Your task to perform on an android device: star an email in the gmail app Image 0: 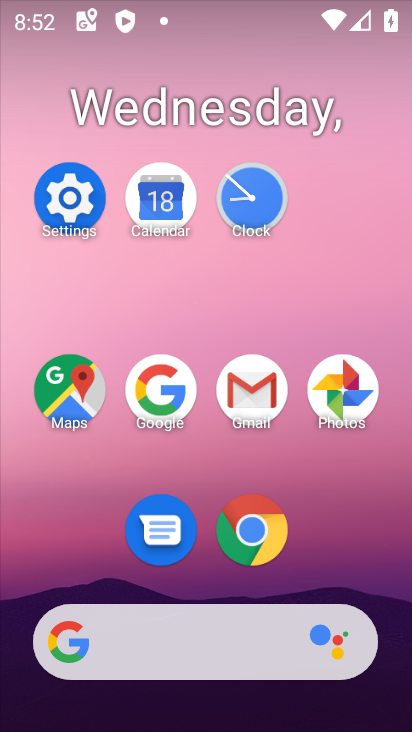
Step 0: click (246, 389)
Your task to perform on an android device: star an email in the gmail app Image 1: 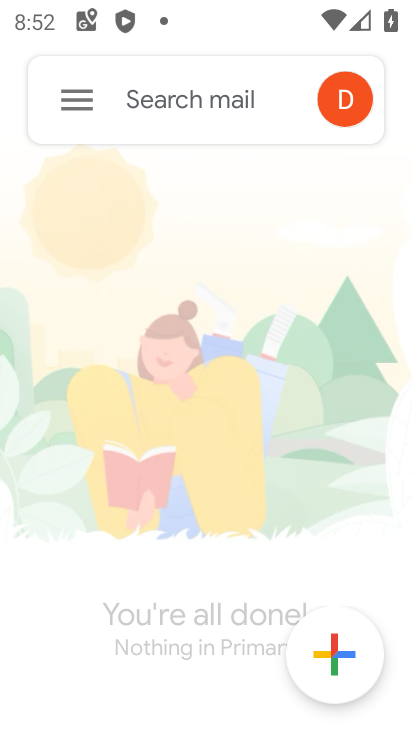
Step 1: click (72, 108)
Your task to perform on an android device: star an email in the gmail app Image 2: 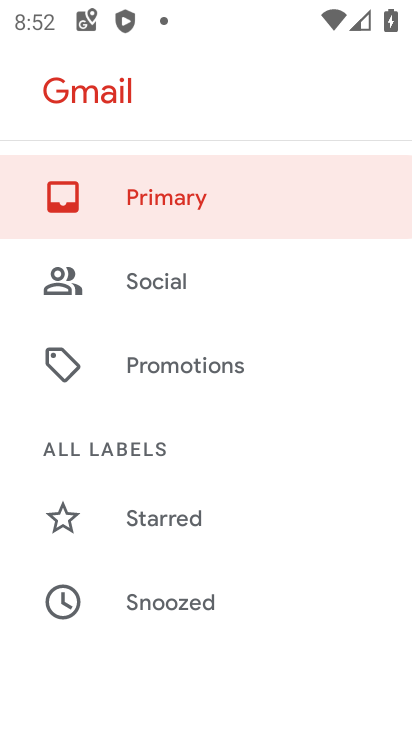
Step 2: drag from (203, 561) to (265, 233)
Your task to perform on an android device: star an email in the gmail app Image 3: 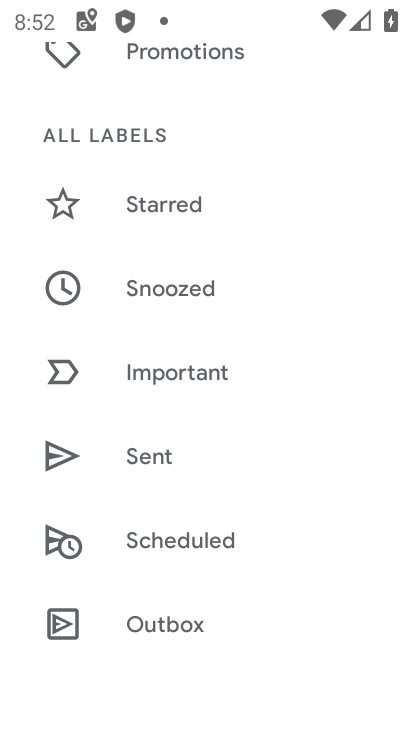
Step 3: drag from (298, 512) to (296, 199)
Your task to perform on an android device: star an email in the gmail app Image 4: 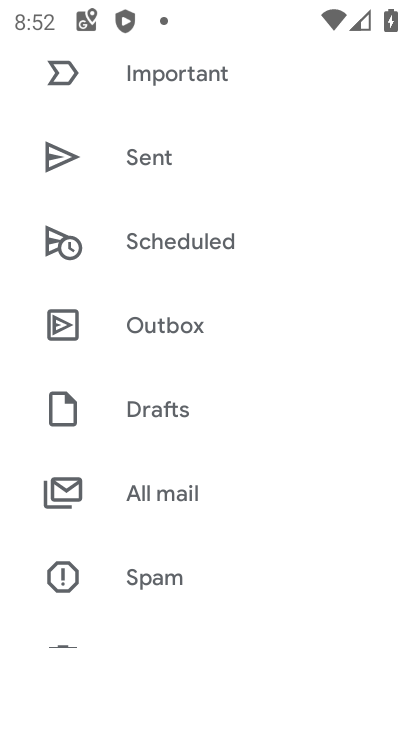
Step 4: click (281, 508)
Your task to perform on an android device: star an email in the gmail app Image 5: 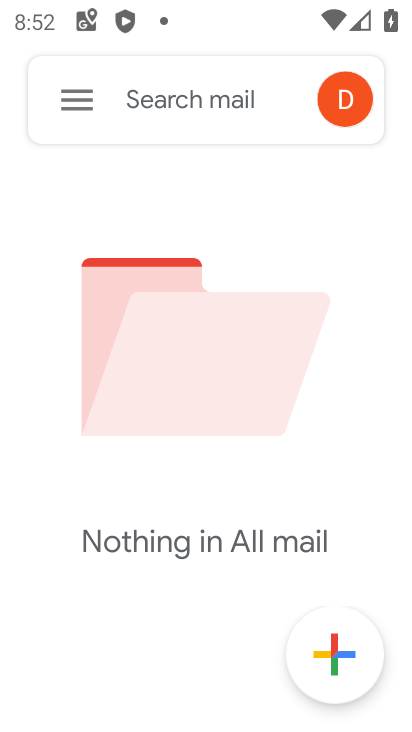
Step 5: task complete